Your task to perform on an android device: What's on my calendar tomorrow? Image 0: 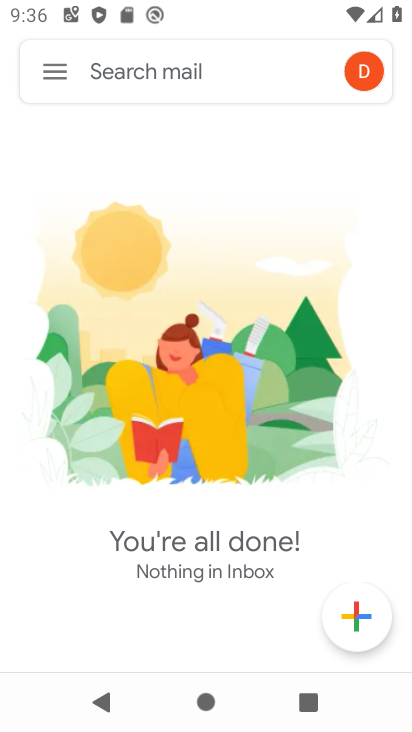
Step 0: press home button
Your task to perform on an android device: What's on my calendar tomorrow? Image 1: 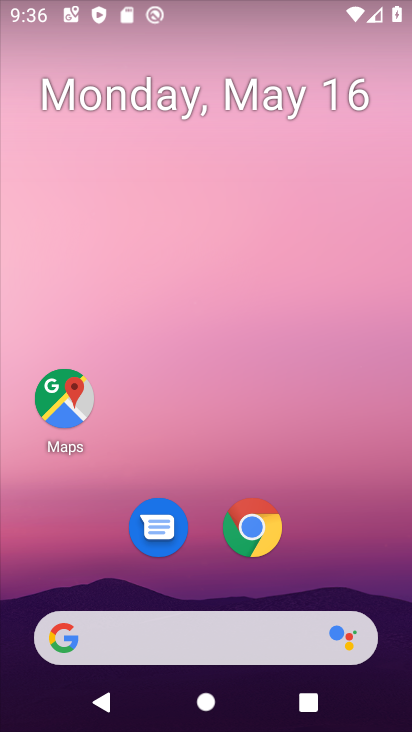
Step 1: drag from (339, 584) to (264, 34)
Your task to perform on an android device: What's on my calendar tomorrow? Image 2: 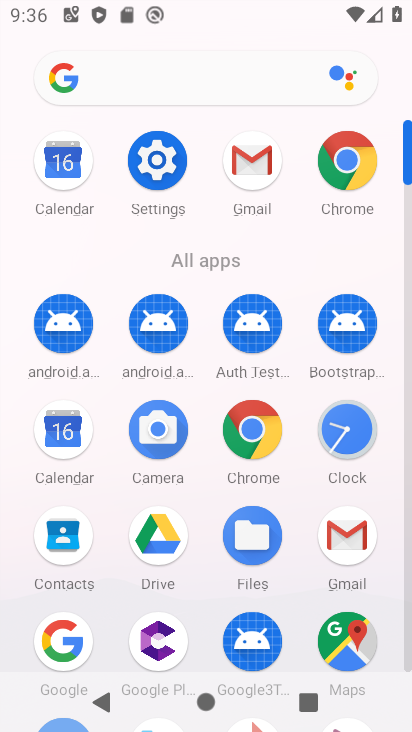
Step 2: click (66, 161)
Your task to perform on an android device: What's on my calendar tomorrow? Image 3: 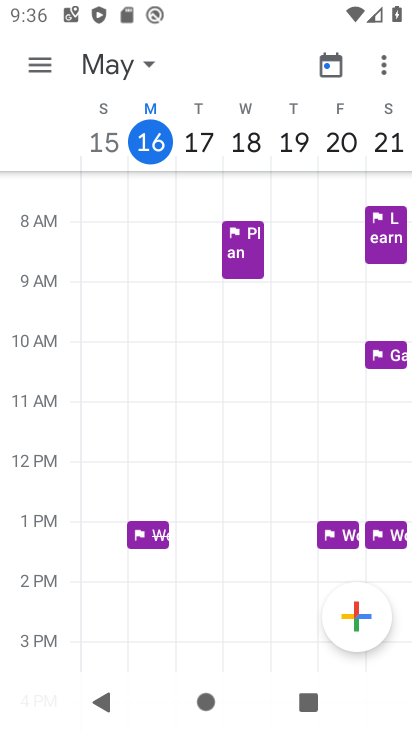
Step 3: click (44, 67)
Your task to perform on an android device: What's on my calendar tomorrow? Image 4: 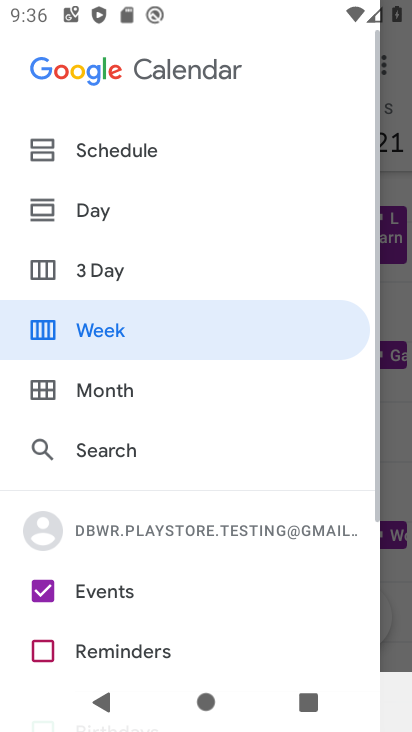
Step 4: click (72, 149)
Your task to perform on an android device: What's on my calendar tomorrow? Image 5: 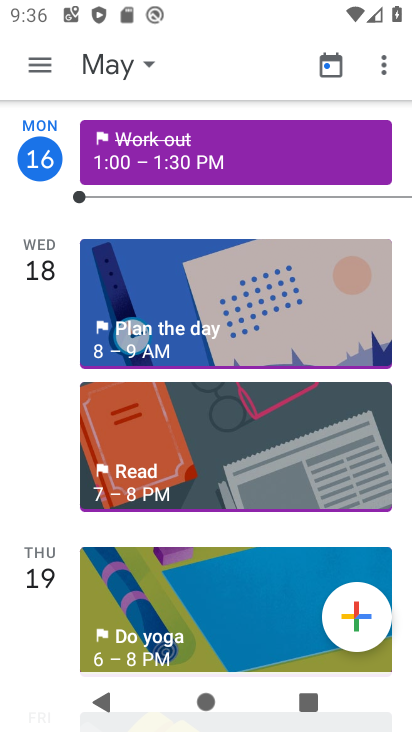
Step 5: drag from (185, 302) to (192, 463)
Your task to perform on an android device: What's on my calendar tomorrow? Image 6: 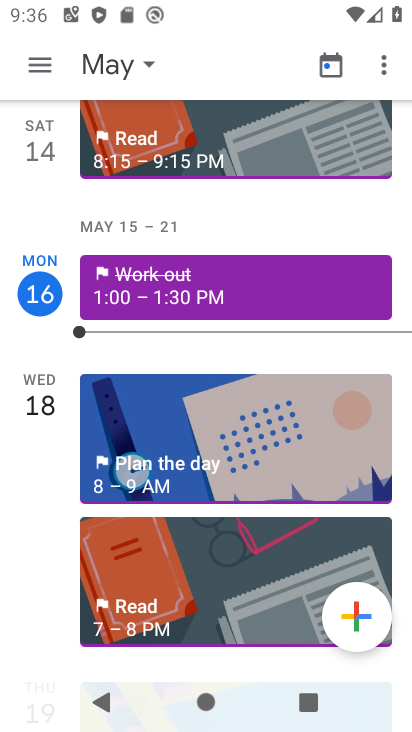
Step 6: click (139, 63)
Your task to perform on an android device: What's on my calendar tomorrow? Image 7: 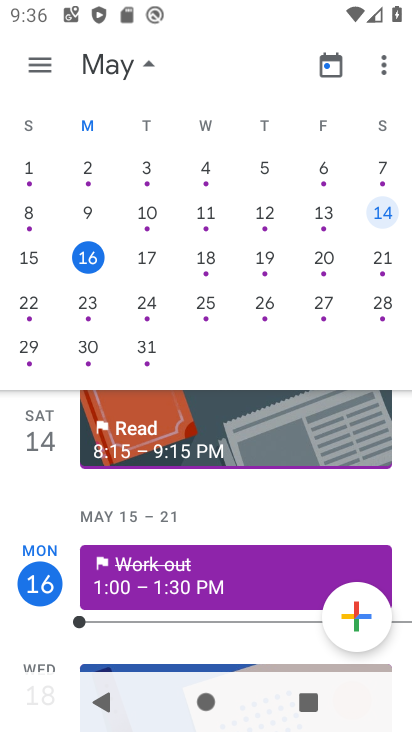
Step 7: click (156, 258)
Your task to perform on an android device: What's on my calendar tomorrow? Image 8: 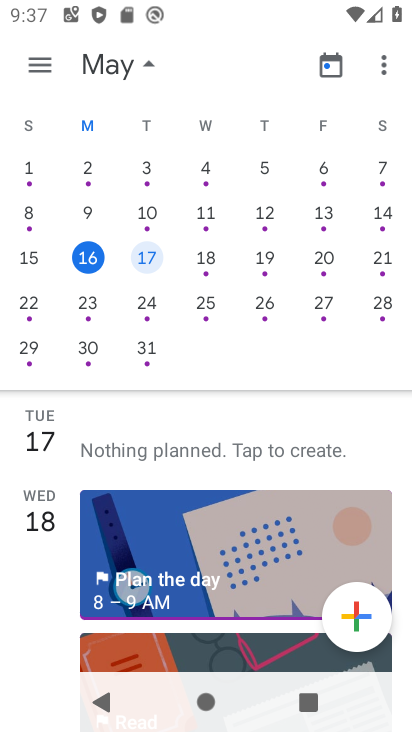
Step 8: click (177, 451)
Your task to perform on an android device: What's on my calendar tomorrow? Image 9: 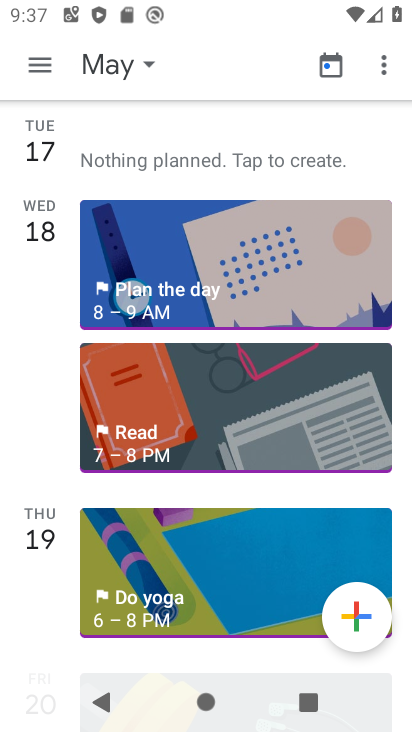
Step 9: click (222, 155)
Your task to perform on an android device: What's on my calendar tomorrow? Image 10: 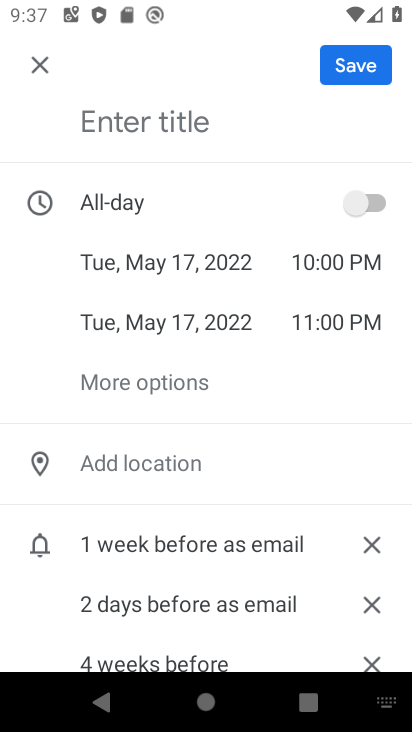
Step 10: task complete